Your task to perform on an android device: Is it going to rain this weekend? Image 0: 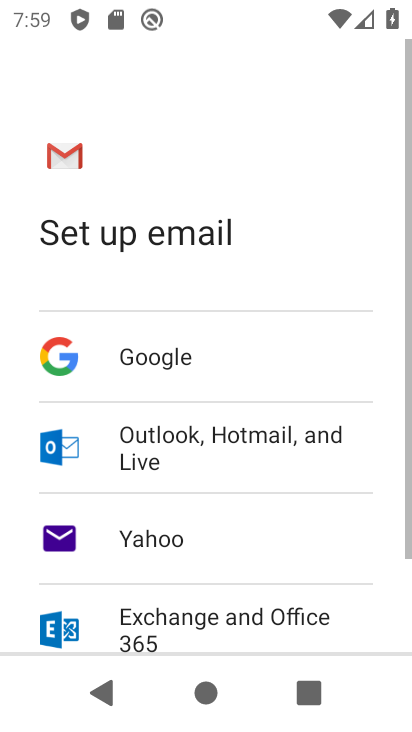
Step 0: press home button
Your task to perform on an android device: Is it going to rain this weekend? Image 1: 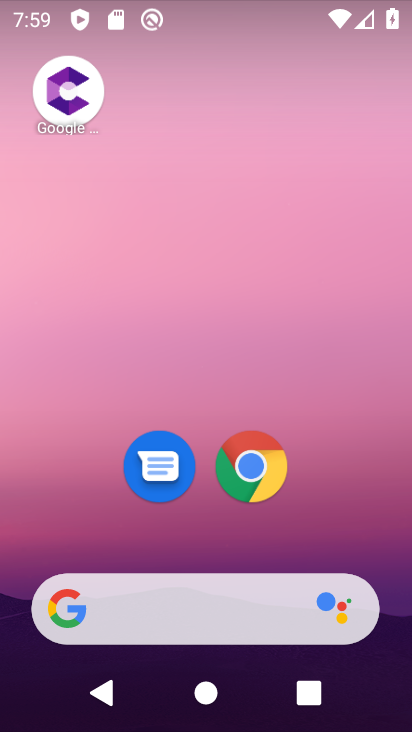
Step 1: drag from (389, 564) to (275, 172)
Your task to perform on an android device: Is it going to rain this weekend? Image 2: 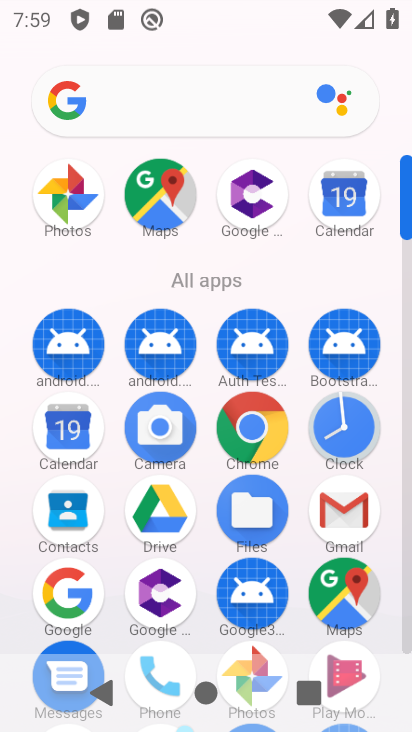
Step 2: click (257, 437)
Your task to perform on an android device: Is it going to rain this weekend? Image 3: 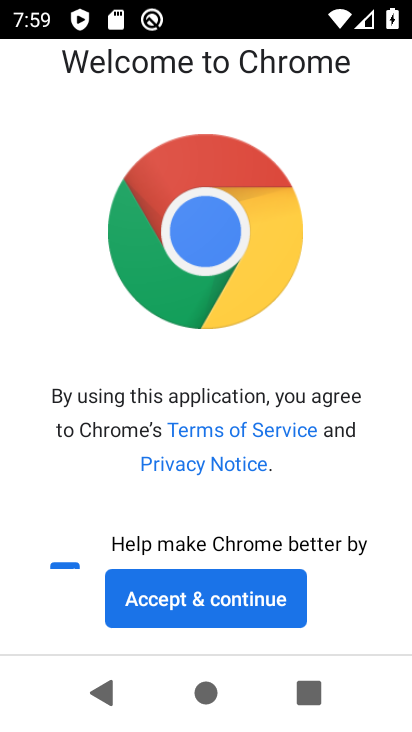
Step 3: click (241, 594)
Your task to perform on an android device: Is it going to rain this weekend? Image 4: 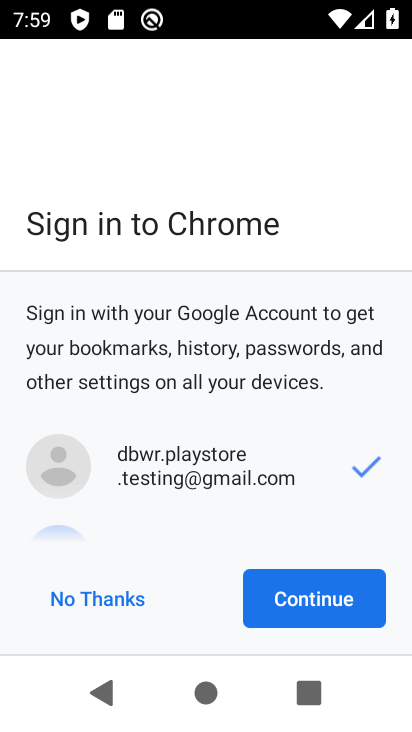
Step 4: click (296, 599)
Your task to perform on an android device: Is it going to rain this weekend? Image 5: 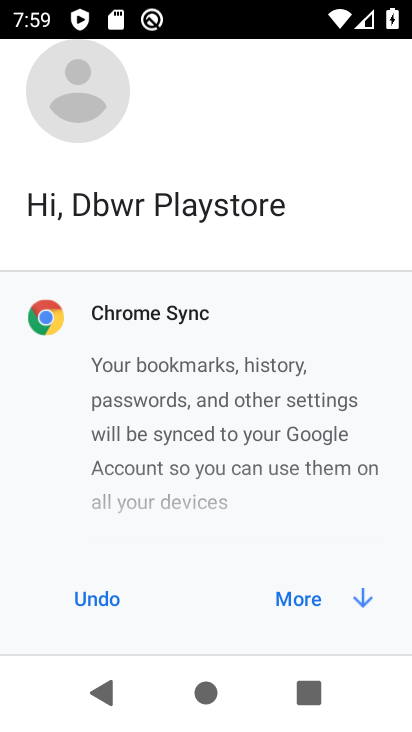
Step 5: click (296, 599)
Your task to perform on an android device: Is it going to rain this weekend? Image 6: 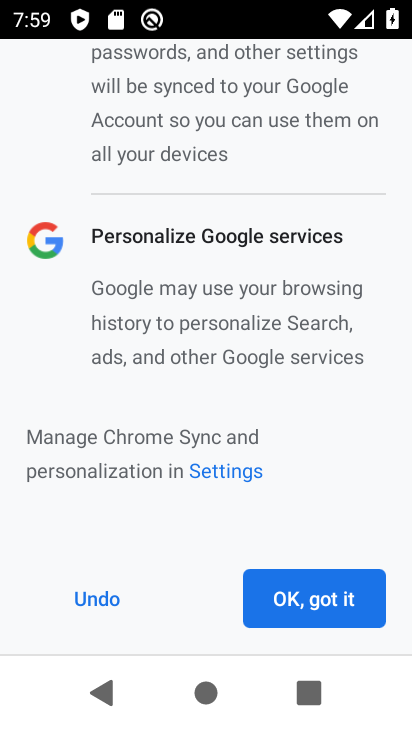
Step 6: click (296, 599)
Your task to perform on an android device: Is it going to rain this weekend? Image 7: 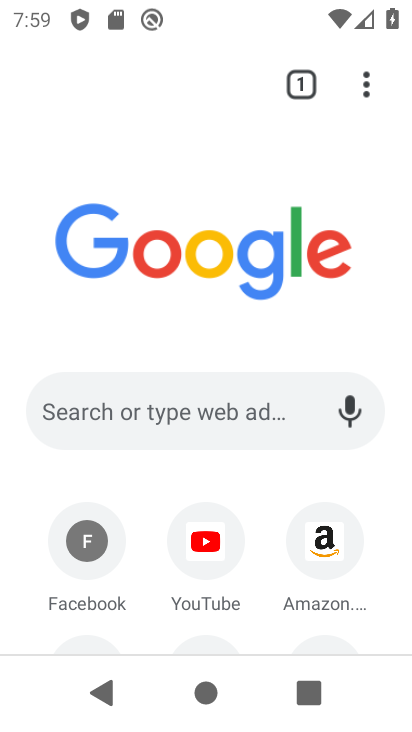
Step 7: click (136, 424)
Your task to perform on an android device: Is it going to rain this weekend? Image 8: 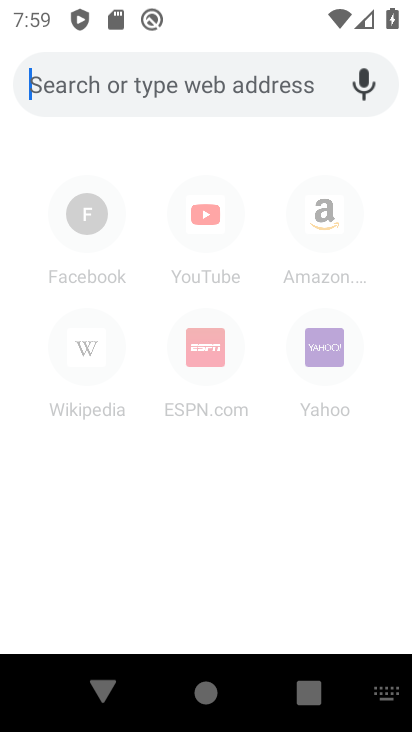
Step 8: type "Is it going to rain this weekend?"
Your task to perform on an android device: Is it going to rain this weekend? Image 9: 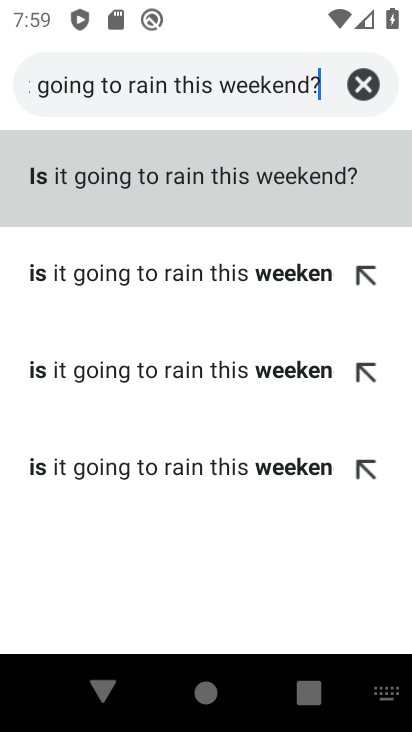
Step 9: click (315, 181)
Your task to perform on an android device: Is it going to rain this weekend? Image 10: 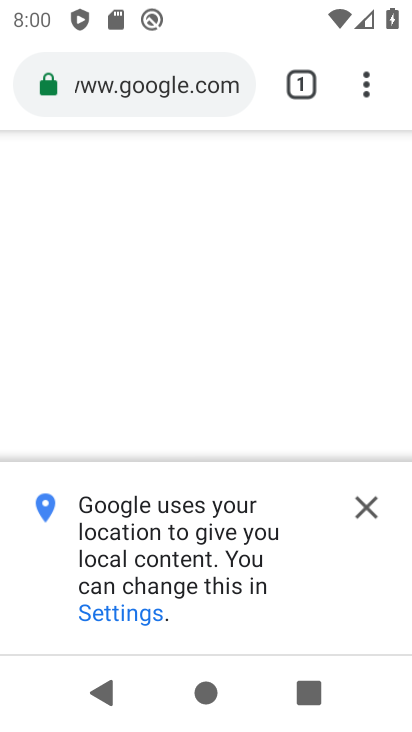
Step 10: click (365, 517)
Your task to perform on an android device: Is it going to rain this weekend? Image 11: 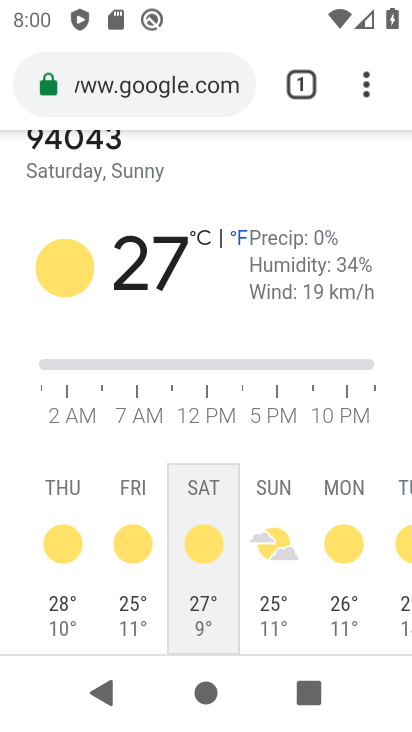
Step 11: task complete